Your task to perform on an android device: Open Yahoo.com Image 0: 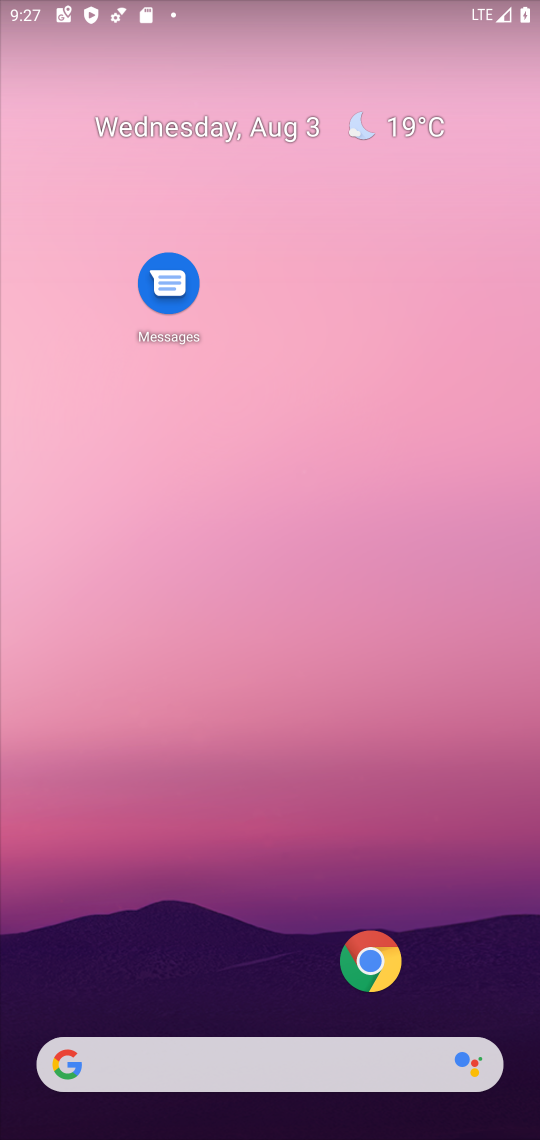
Step 0: click (382, 987)
Your task to perform on an android device: Open Yahoo.com Image 1: 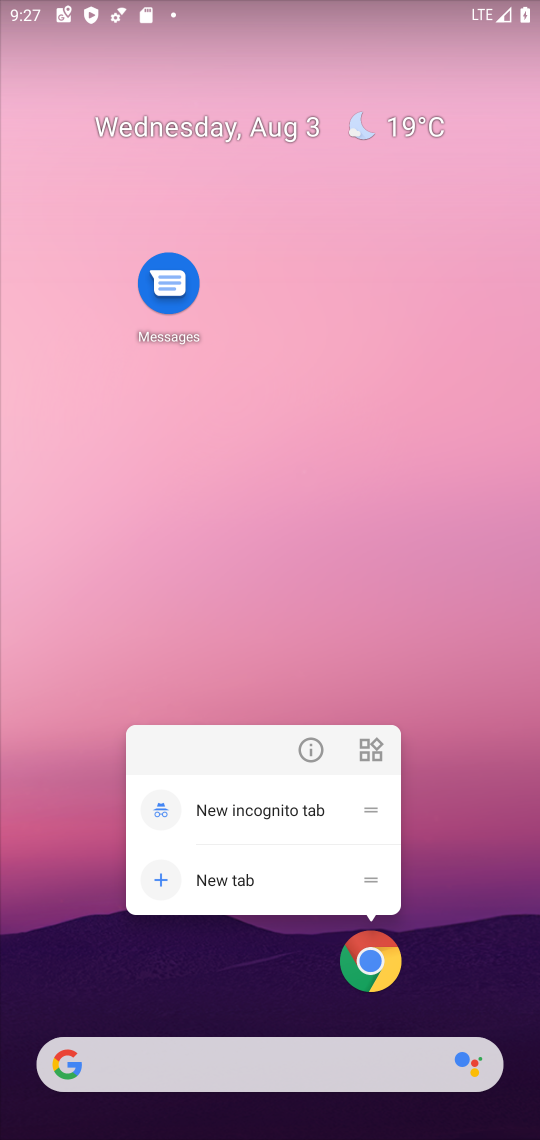
Step 1: click (376, 979)
Your task to perform on an android device: Open Yahoo.com Image 2: 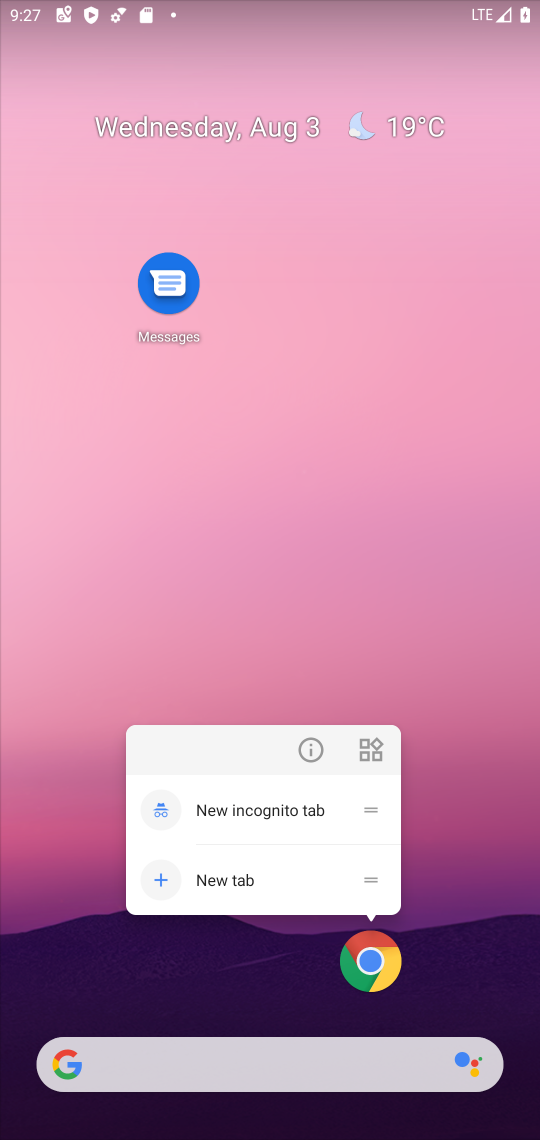
Step 2: click (375, 979)
Your task to perform on an android device: Open Yahoo.com Image 3: 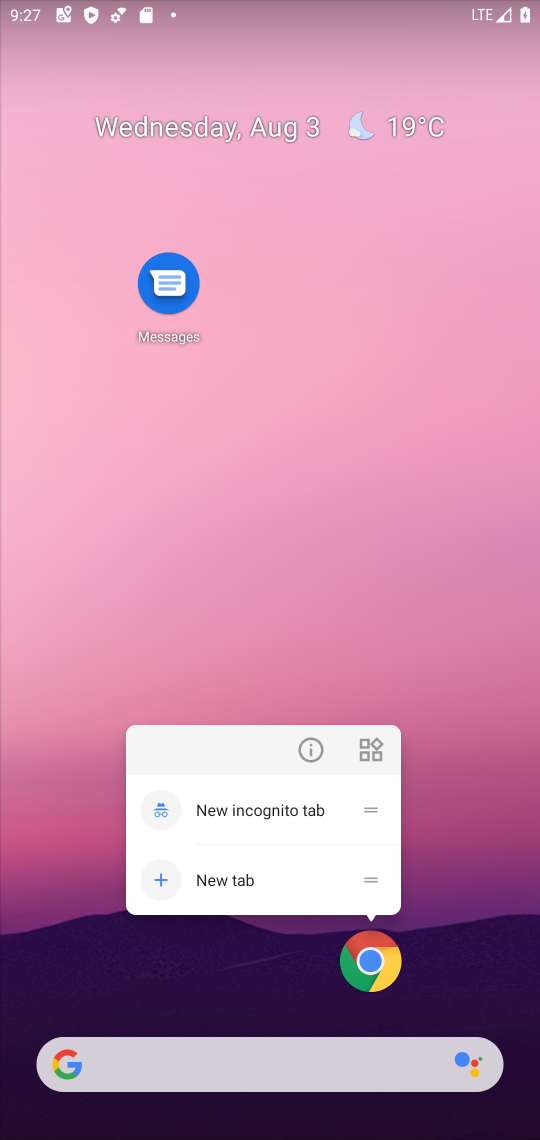
Step 3: click (375, 979)
Your task to perform on an android device: Open Yahoo.com Image 4: 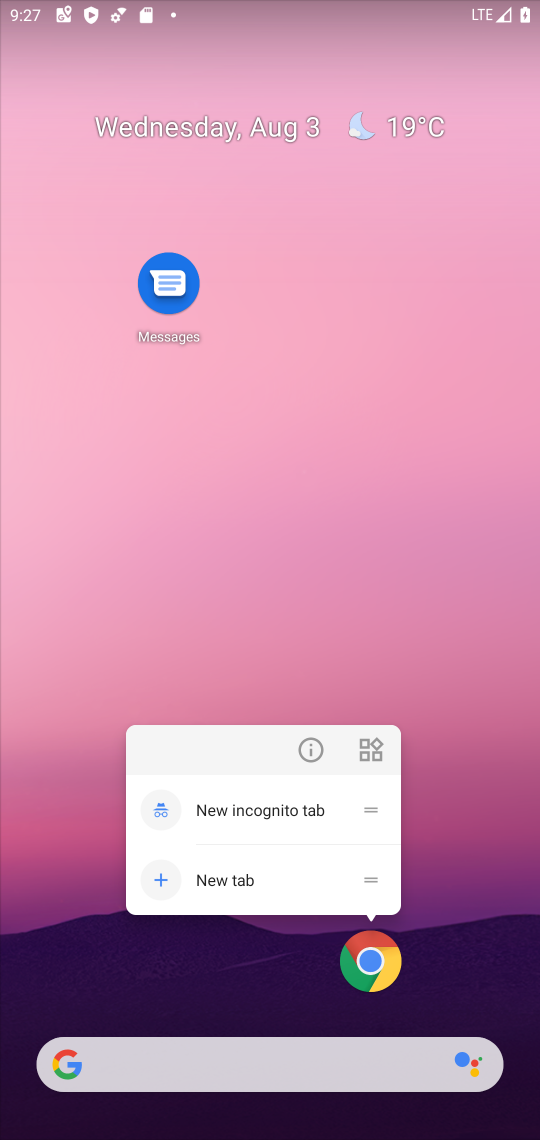
Step 4: click (411, 947)
Your task to perform on an android device: Open Yahoo.com Image 5: 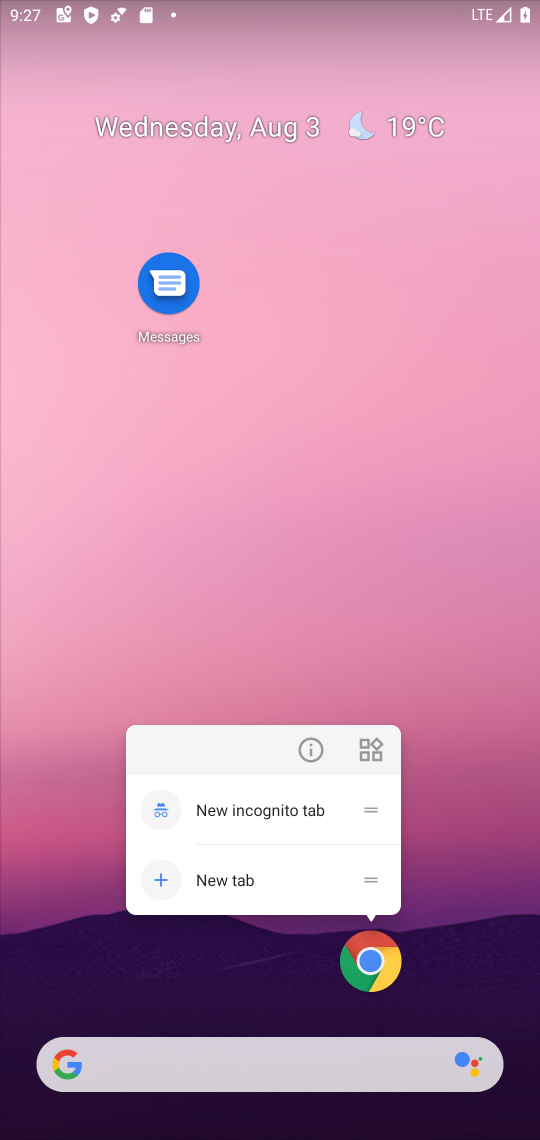
Step 5: click (385, 970)
Your task to perform on an android device: Open Yahoo.com Image 6: 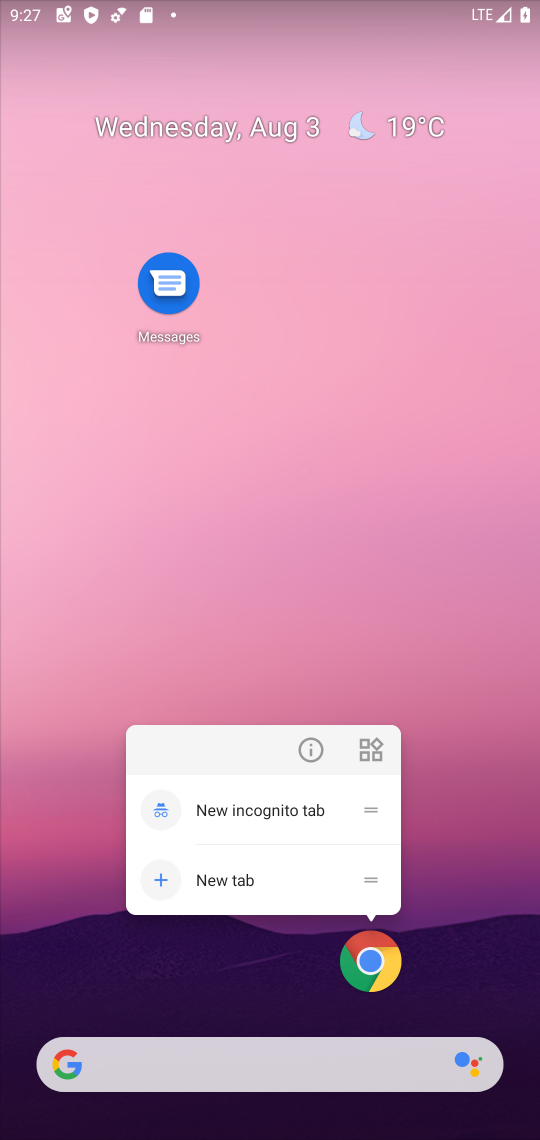
Step 6: click (385, 970)
Your task to perform on an android device: Open Yahoo.com Image 7: 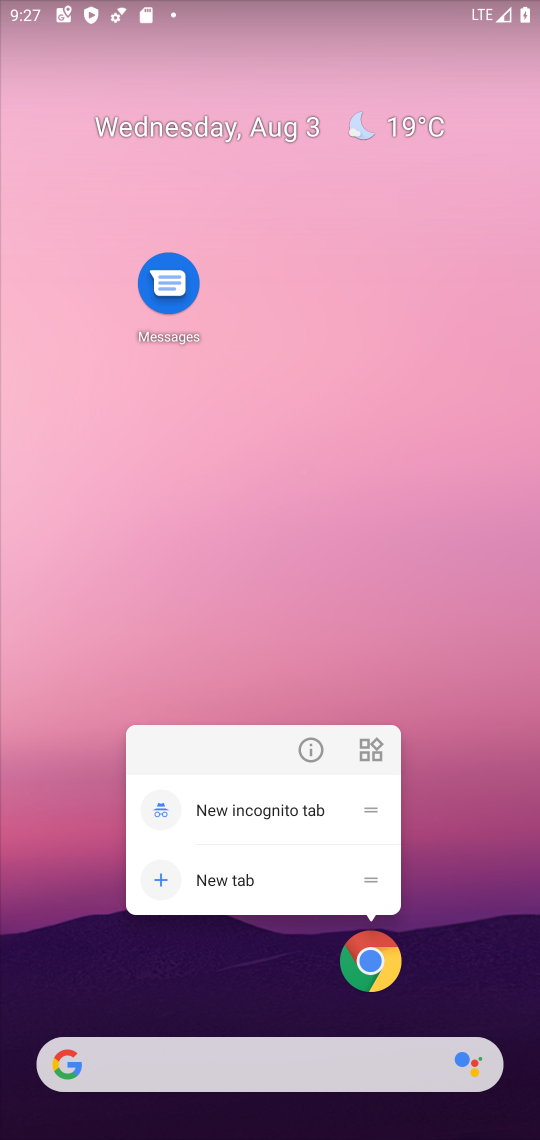
Step 7: click (385, 970)
Your task to perform on an android device: Open Yahoo.com Image 8: 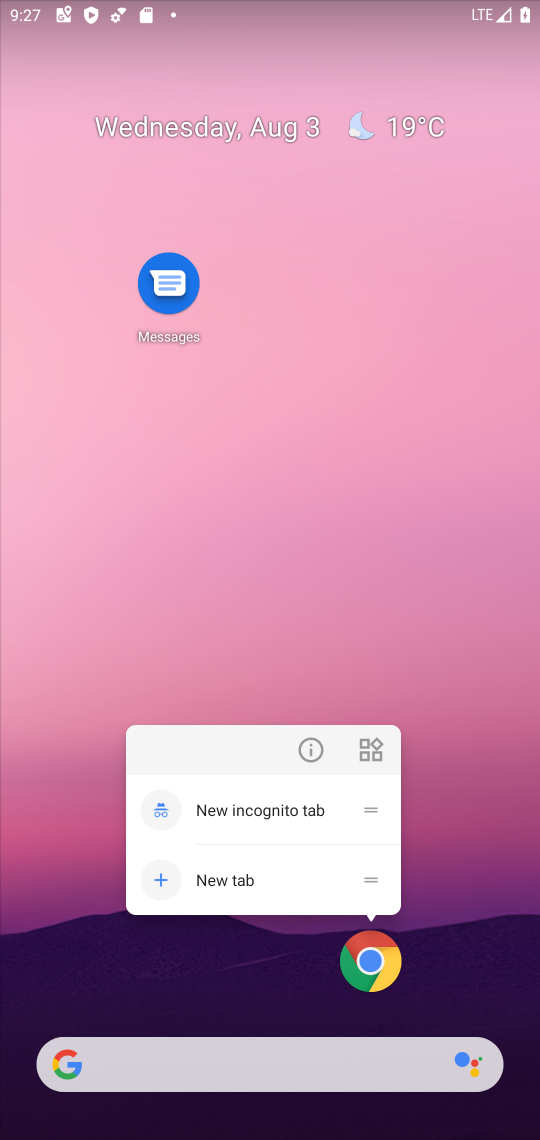
Step 8: click (385, 970)
Your task to perform on an android device: Open Yahoo.com Image 9: 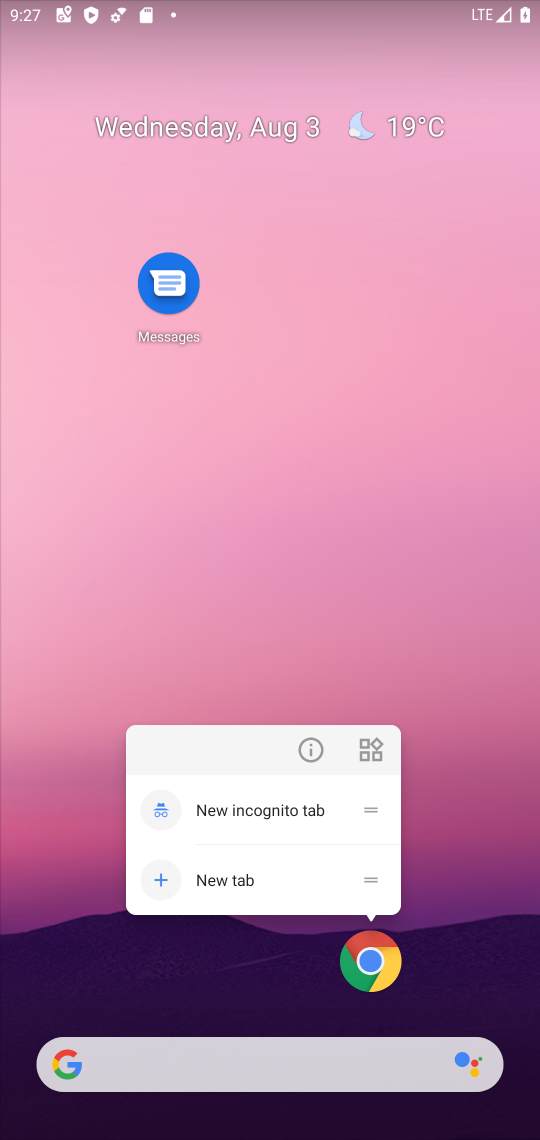
Step 9: click (385, 970)
Your task to perform on an android device: Open Yahoo.com Image 10: 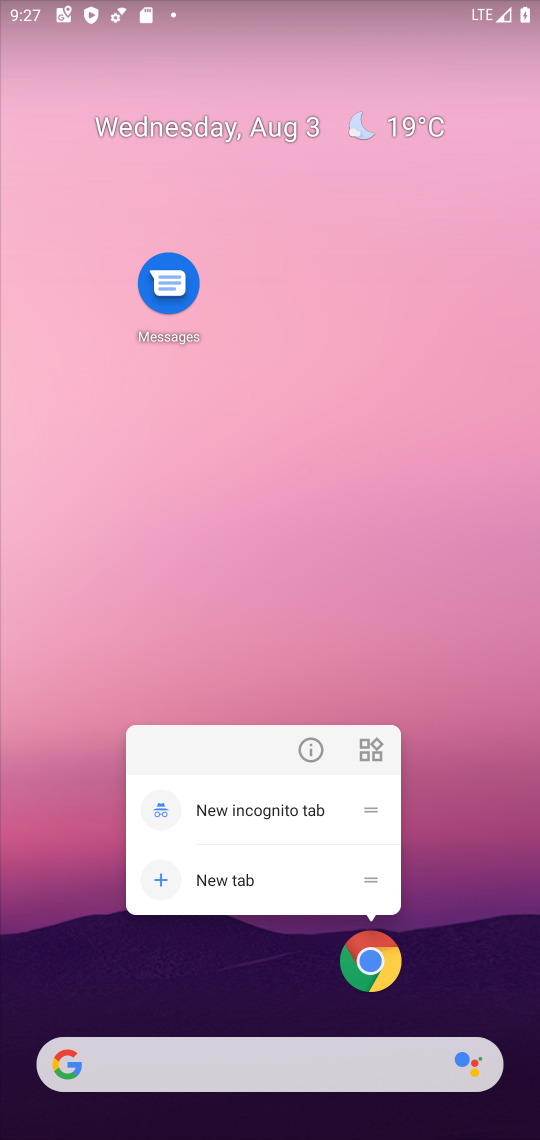
Step 10: click (385, 970)
Your task to perform on an android device: Open Yahoo.com Image 11: 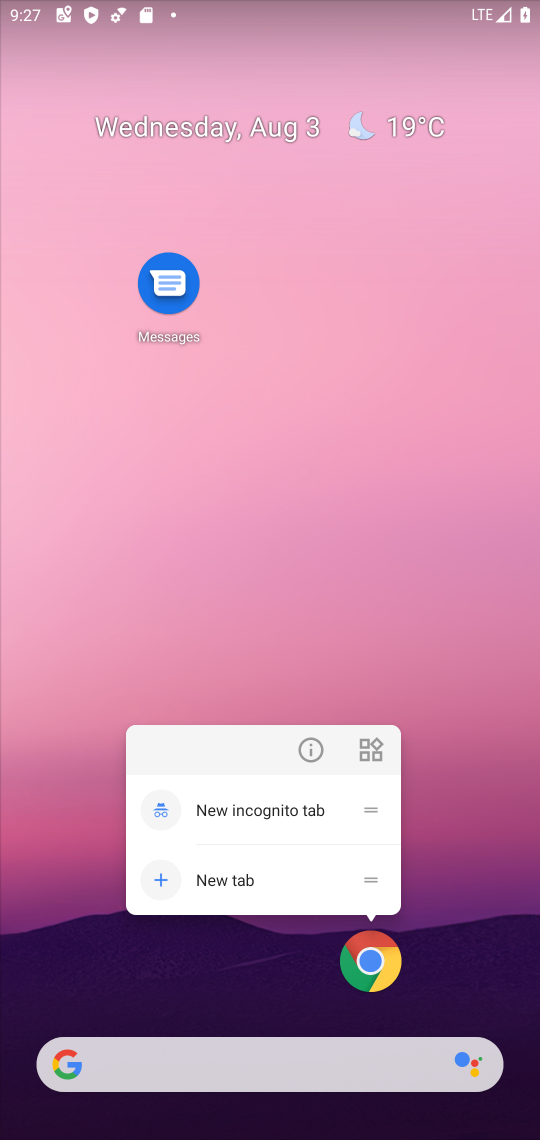
Step 11: click (370, 966)
Your task to perform on an android device: Open Yahoo.com Image 12: 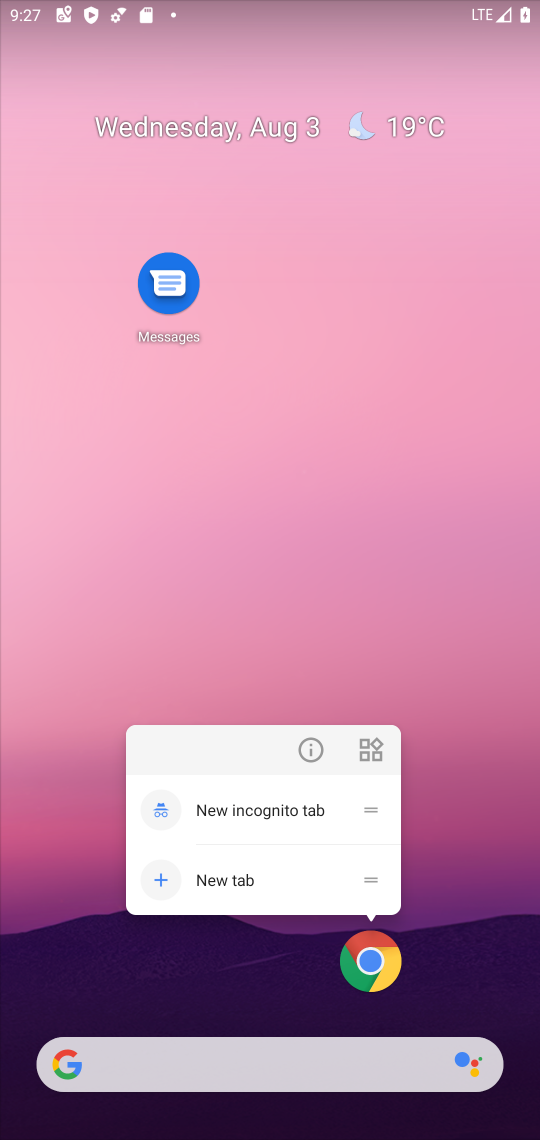
Step 12: click (370, 966)
Your task to perform on an android device: Open Yahoo.com Image 13: 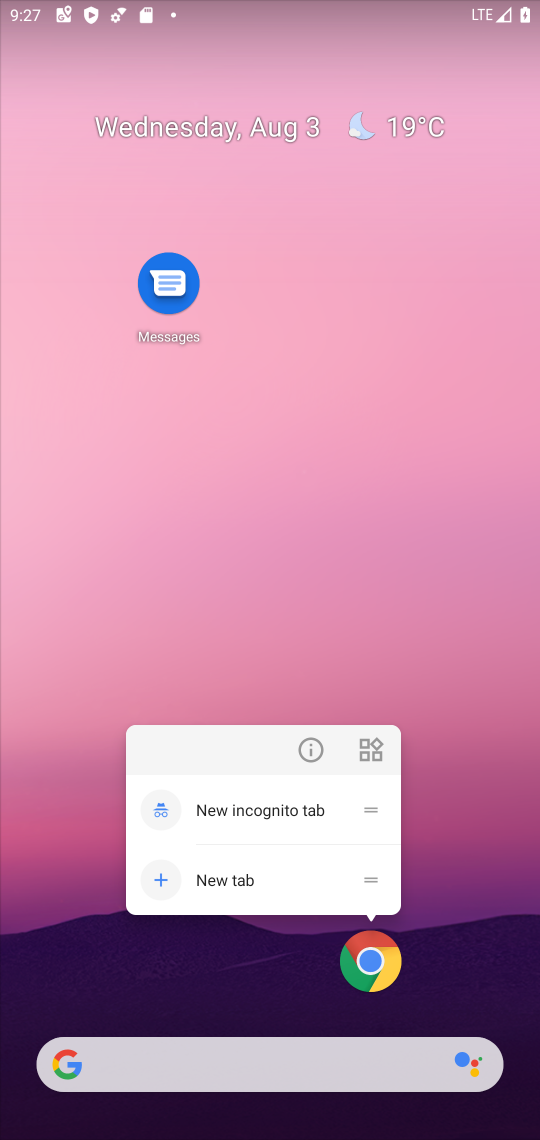
Step 13: click (370, 966)
Your task to perform on an android device: Open Yahoo.com Image 14: 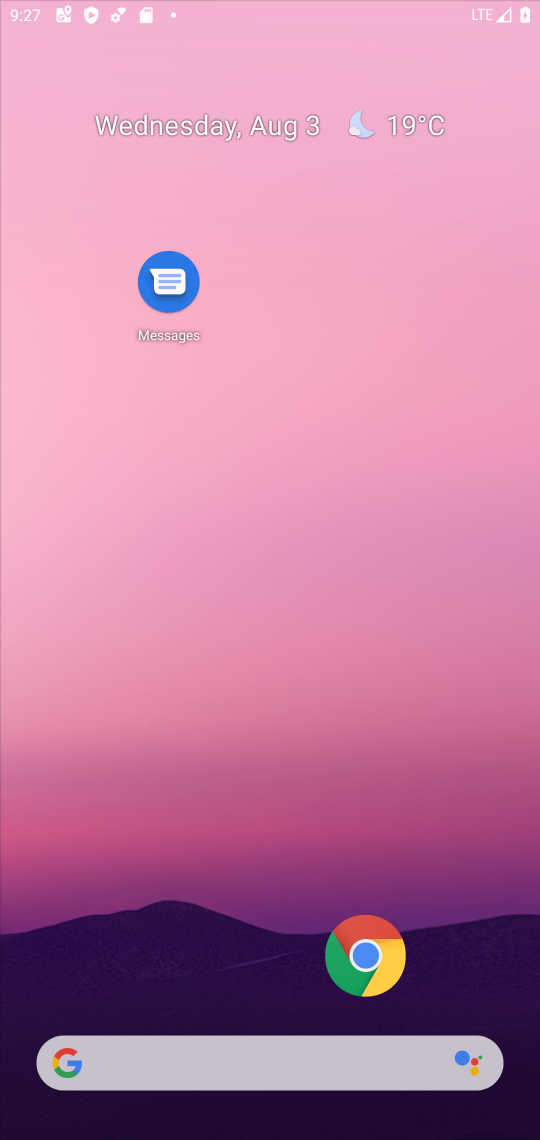
Step 14: click (367, 966)
Your task to perform on an android device: Open Yahoo.com Image 15: 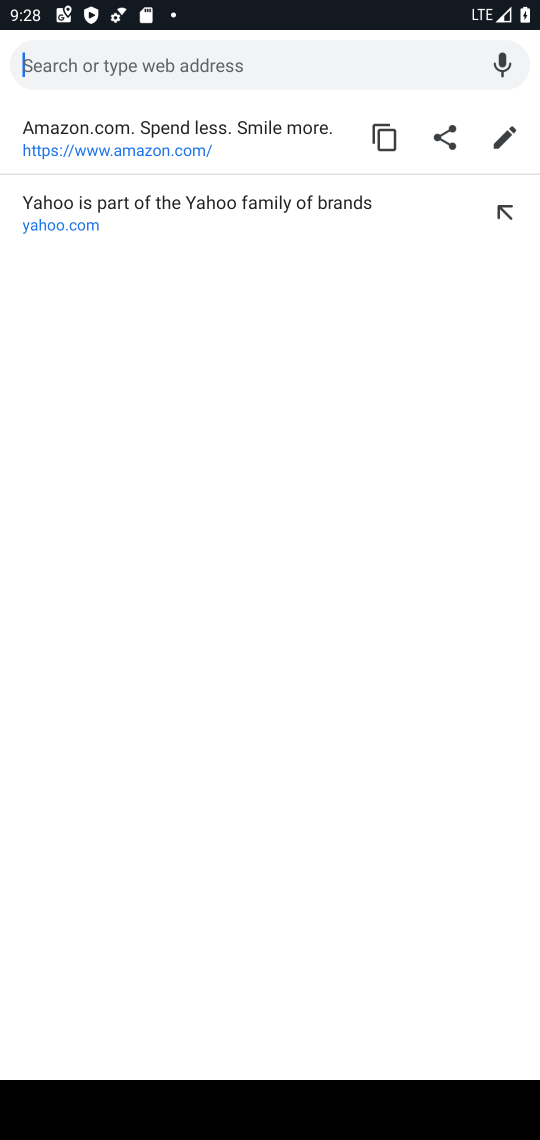
Step 15: press back button
Your task to perform on an android device: Open Yahoo.com Image 16: 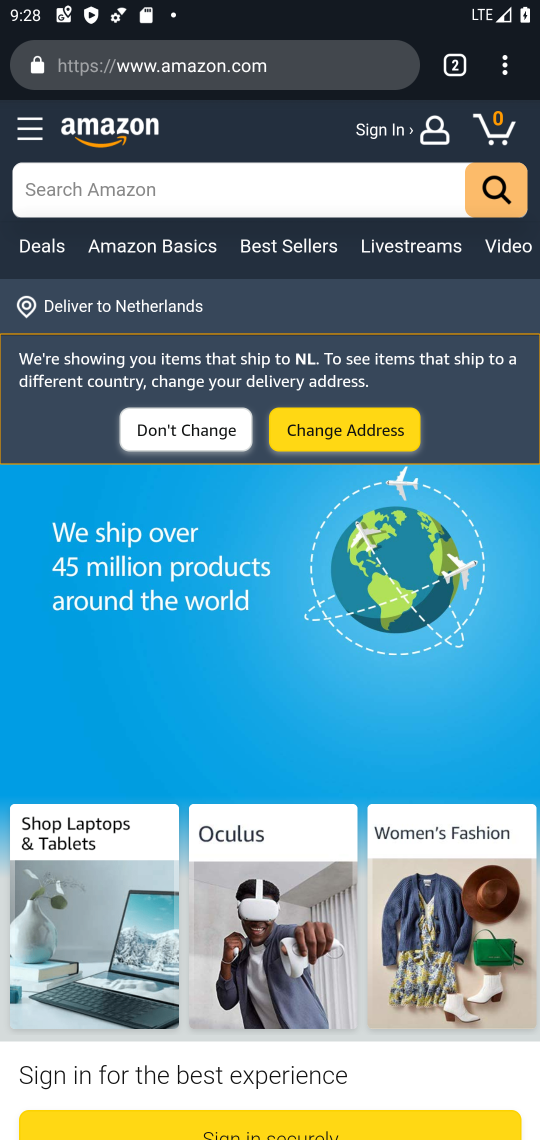
Step 16: click (453, 66)
Your task to perform on an android device: Open Yahoo.com Image 17: 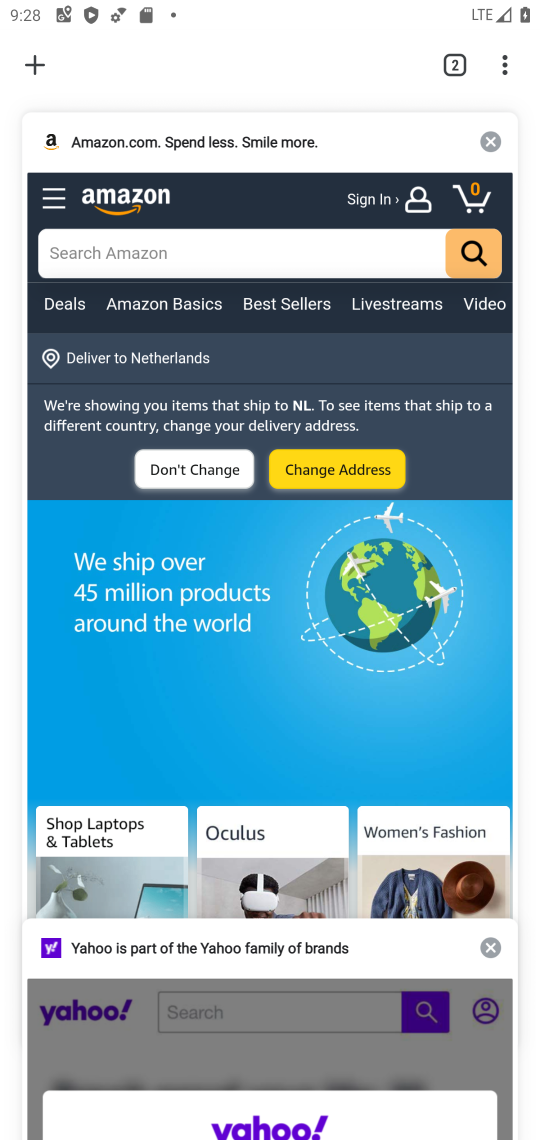
Step 17: click (30, 69)
Your task to perform on an android device: Open Yahoo.com Image 18: 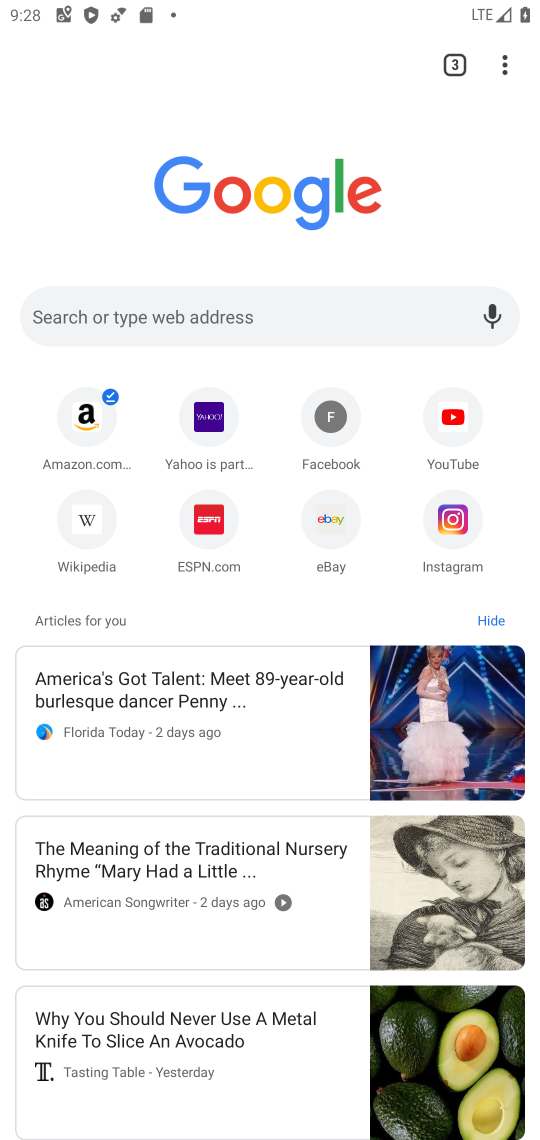
Step 18: click (204, 395)
Your task to perform on an android device: Open Yahoo.com Image 19: 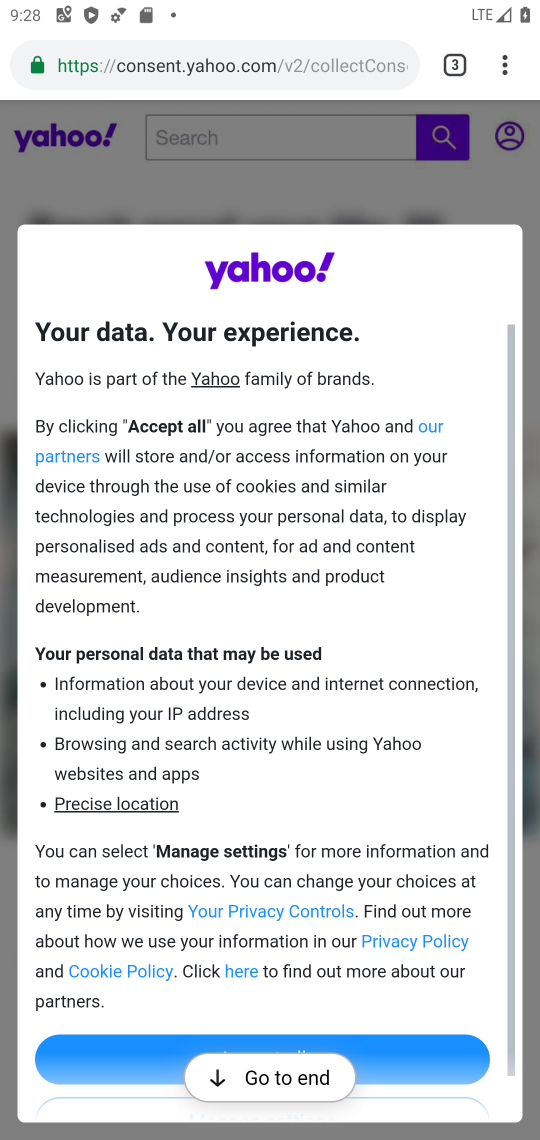
Step 19: task complete